Your task to perform on an android device: Open the calendar and show me this week's events? Image 0: 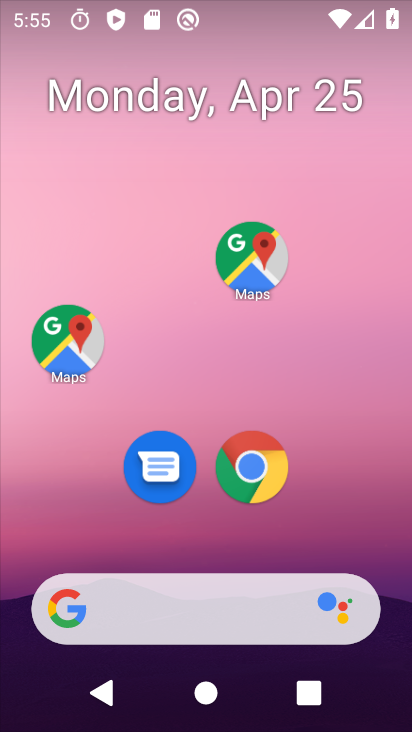
Step 0: drag from (295, 602) to (328, 62)
Your task to perform on an android device: Open the calendar and show me this week's events? Image 1: 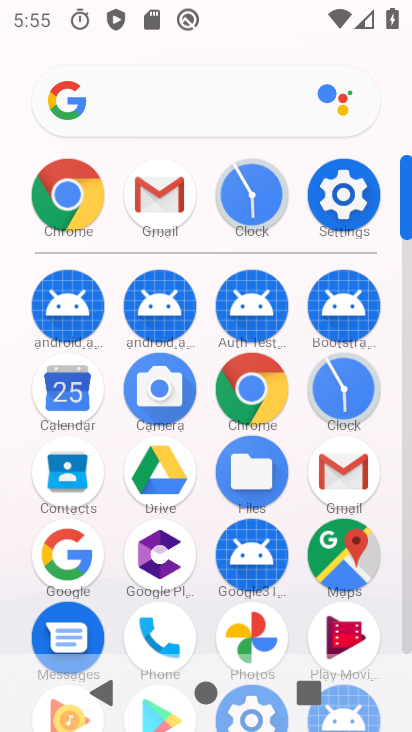
Step 1: click (60, 420)
Your task to perform on an android device: Open the calendar and show me this week's events? Image 2: 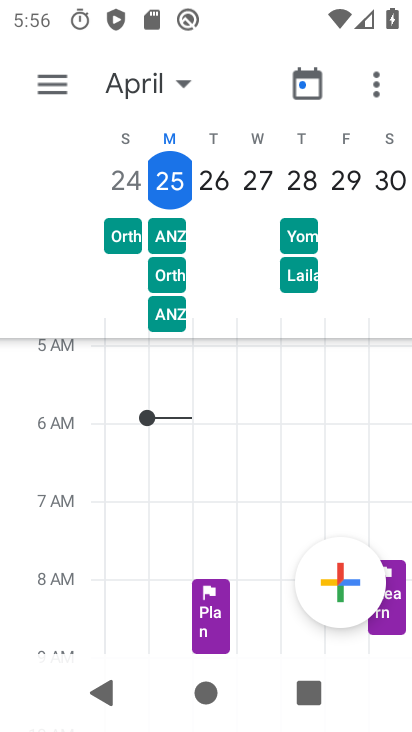
Step 2: click (188, 91)
Your task to perform on an android device: Open the calendar and show me this week's events? Image 3: 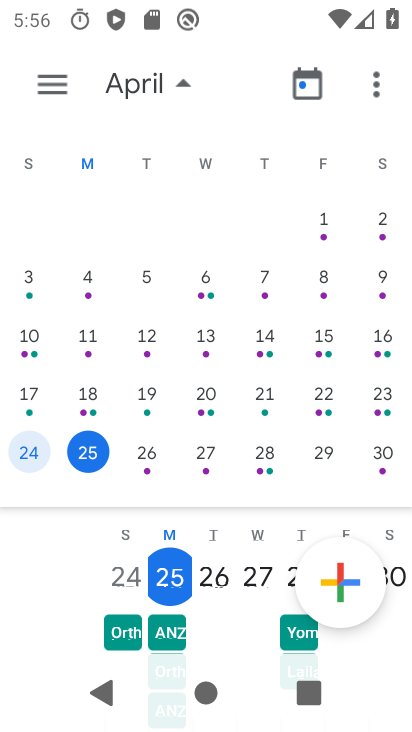
Step 3: drag from (377, 392) to (48, 411)
Your task to perform on an android device: Open the calendar and show me this week's events? Image 4: 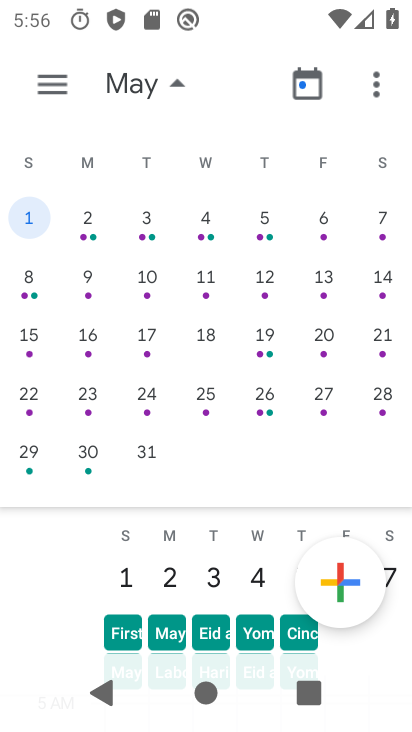
Step 4: click (254, 226)
Your task to perform on an android device: Open the calendar and show me this week's events? Image 5: 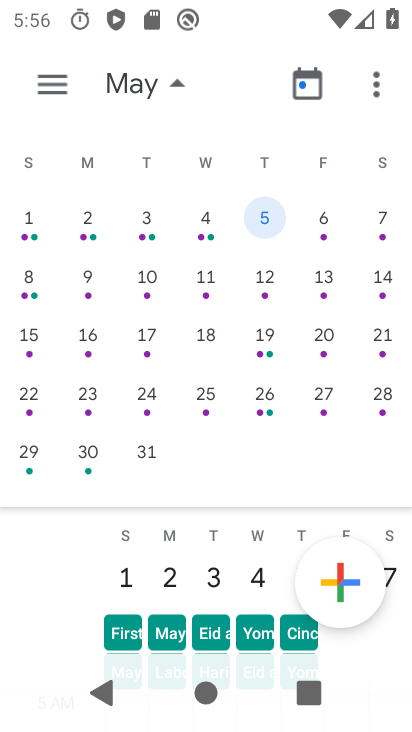
Step 5: task complete